Your task to perform on an android device: What's on my calendar today? Image 0: 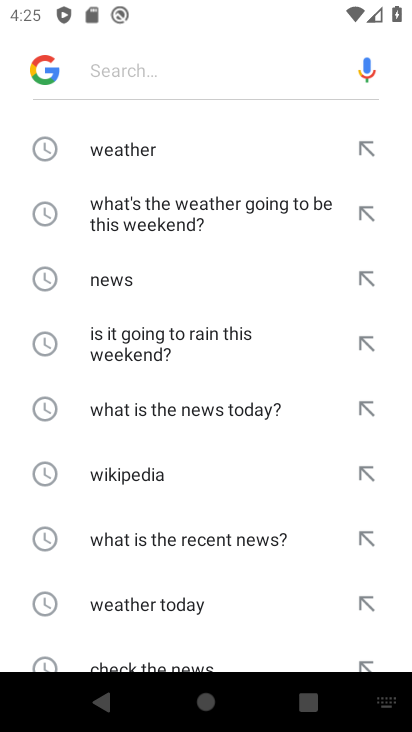
Step 0: press home button
Your task to perform on an android device: What's on my calendar today? Image 1: 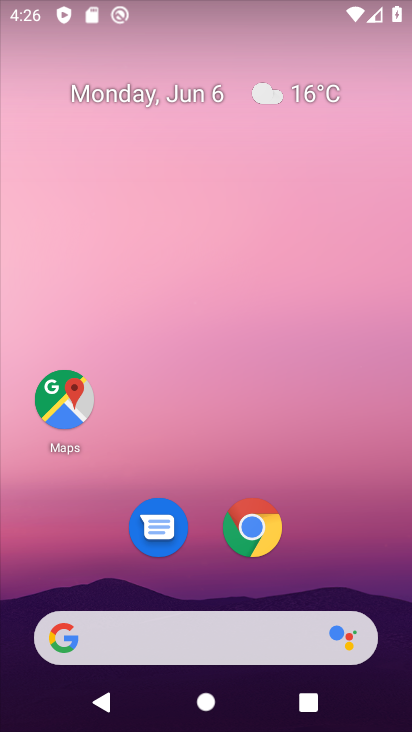
Step 1: drag from (208, 612) to (207, 203)
Your task to perform on an android device: What's on my calendar today? Image 2: 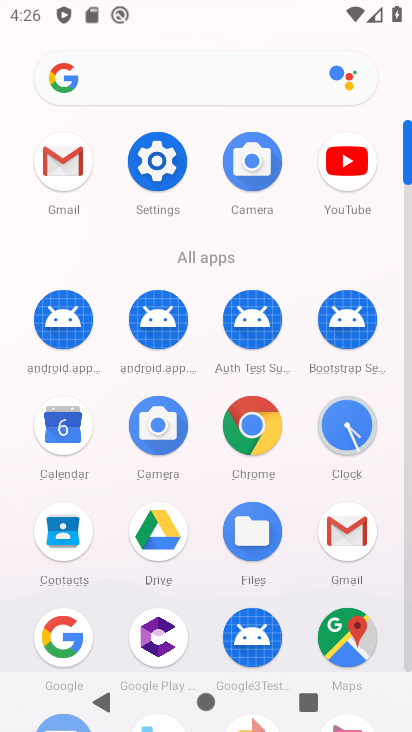
Step 2: click (61, 406)
Your task to perform on an android device: What's on my calendar today? Image 3: 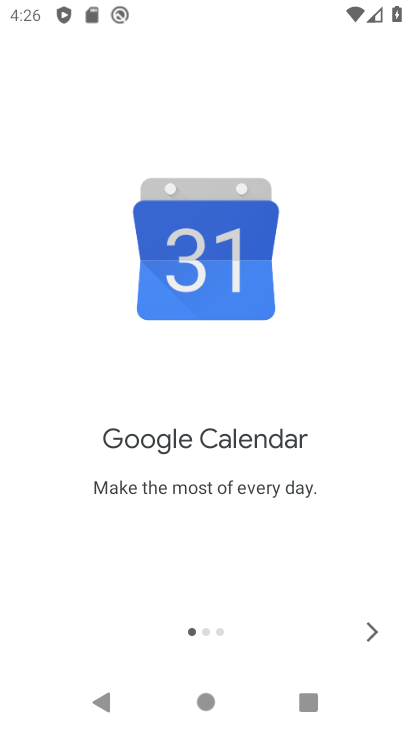
Step 3: click (365, 639)
Your task to perform on an android device: What's on my calendar today? Image 4: 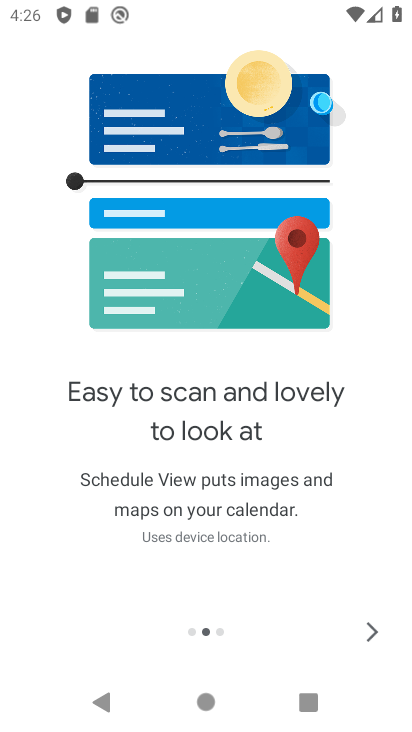
Step 4: click (365, 639)
Your task to perform on an android device: What's on my calendar today? Image 5: 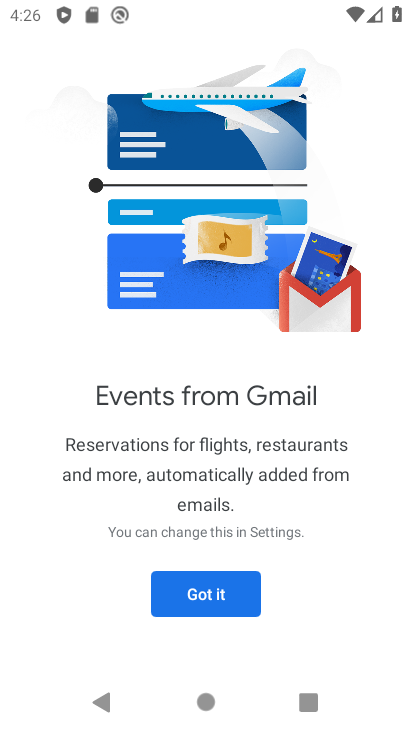
Step 5: click (195, 603)
Your task to perform on an android device: What's on my calendar today? Image 6: 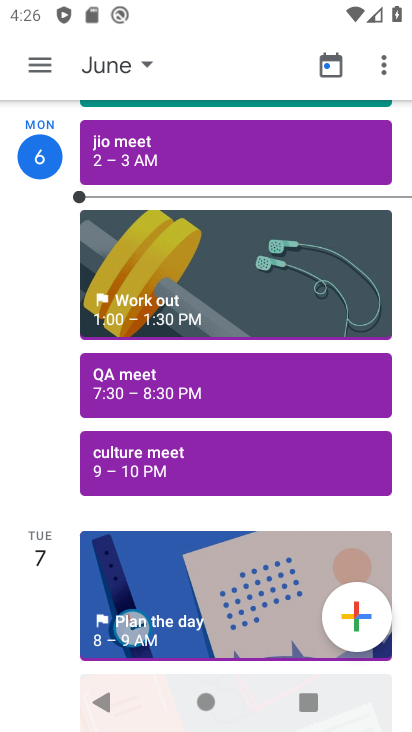
Step 6: click (134, 164)
Your task to perform on an android device: What's on my calendar today? Image 7: 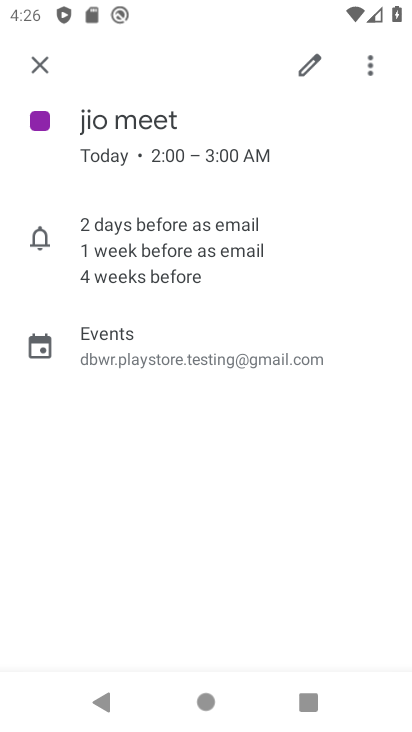
Step 7: task complete